Your task to perform on an android device: Open Chrome and go to the settings page Image 0: 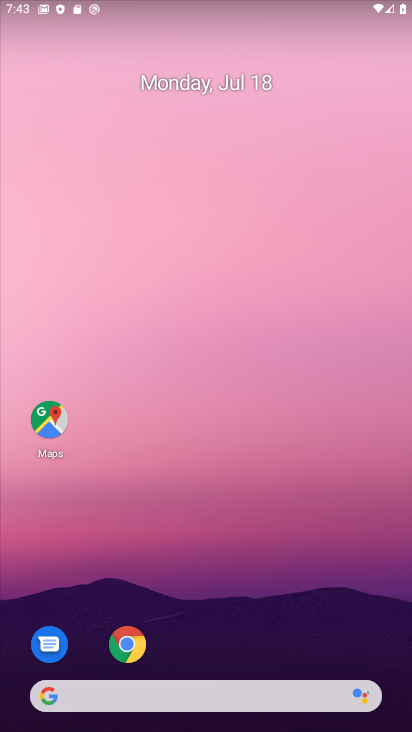
Step 0: click (115, 642)
Your task to perform on an android device: Open Chrome and go to the settings page Image 1: 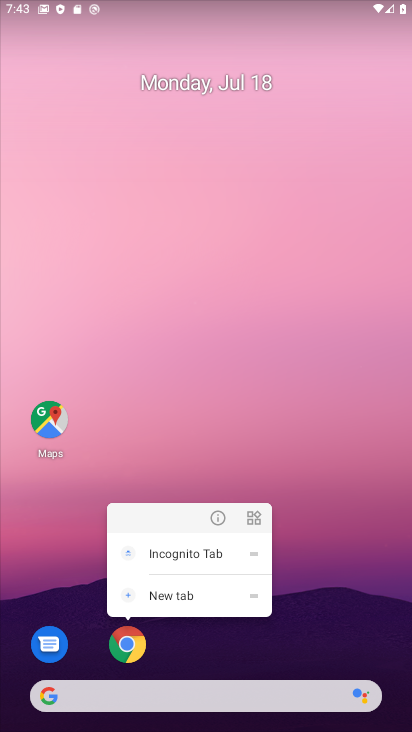
Step 1: click (124, 641)
Your task to perform on an android device: Open Chrome and go to the settings page Image 2: 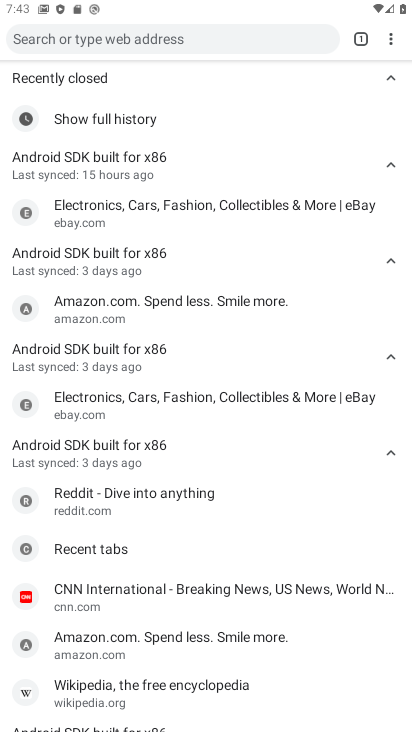
Step 2: task complete